Your task to perform on an android device: open app "ColorNote Notepad Notes" (install if not already installed) Image 0: 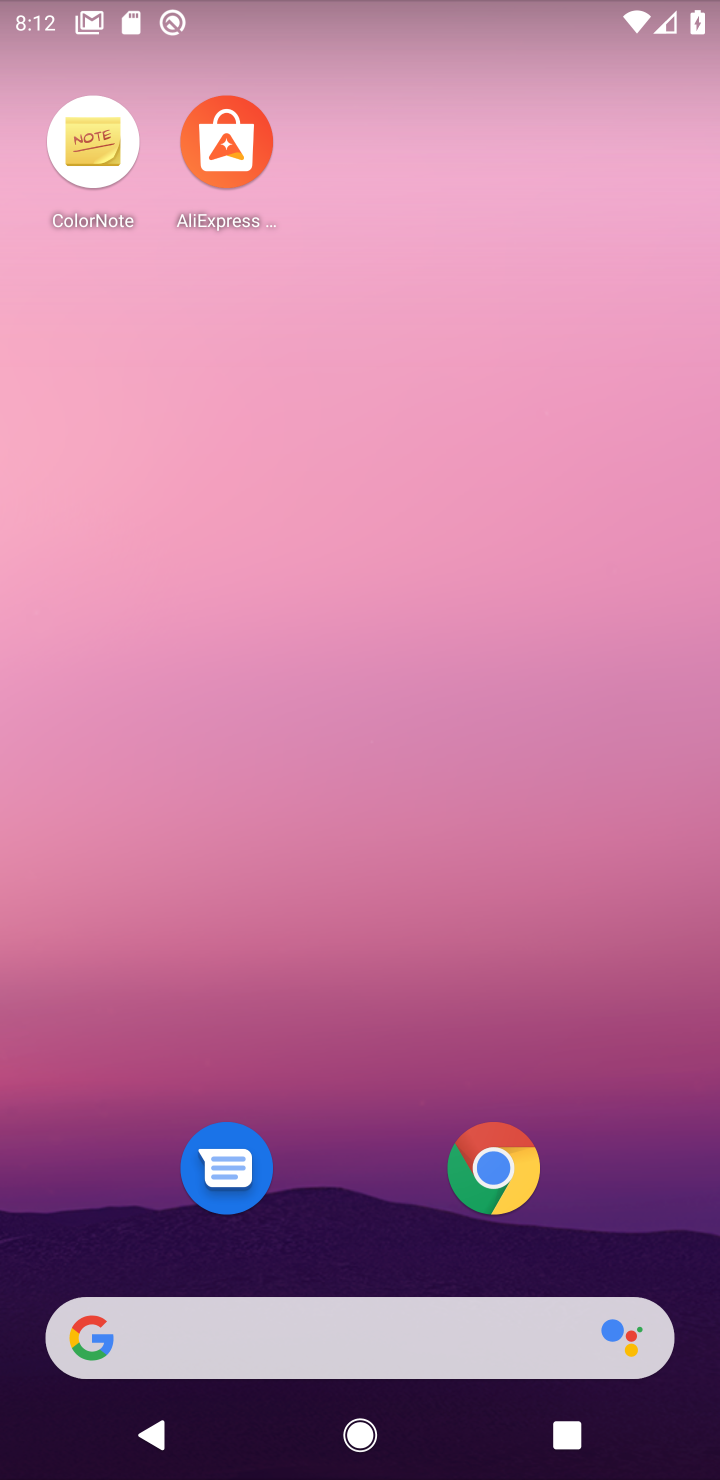
Step 0: drag from (322, 1030) to (191, 31)
Your task to perform on an android device: open app "ColorNote Notepad Notes" (install if not already installed) Image 1: 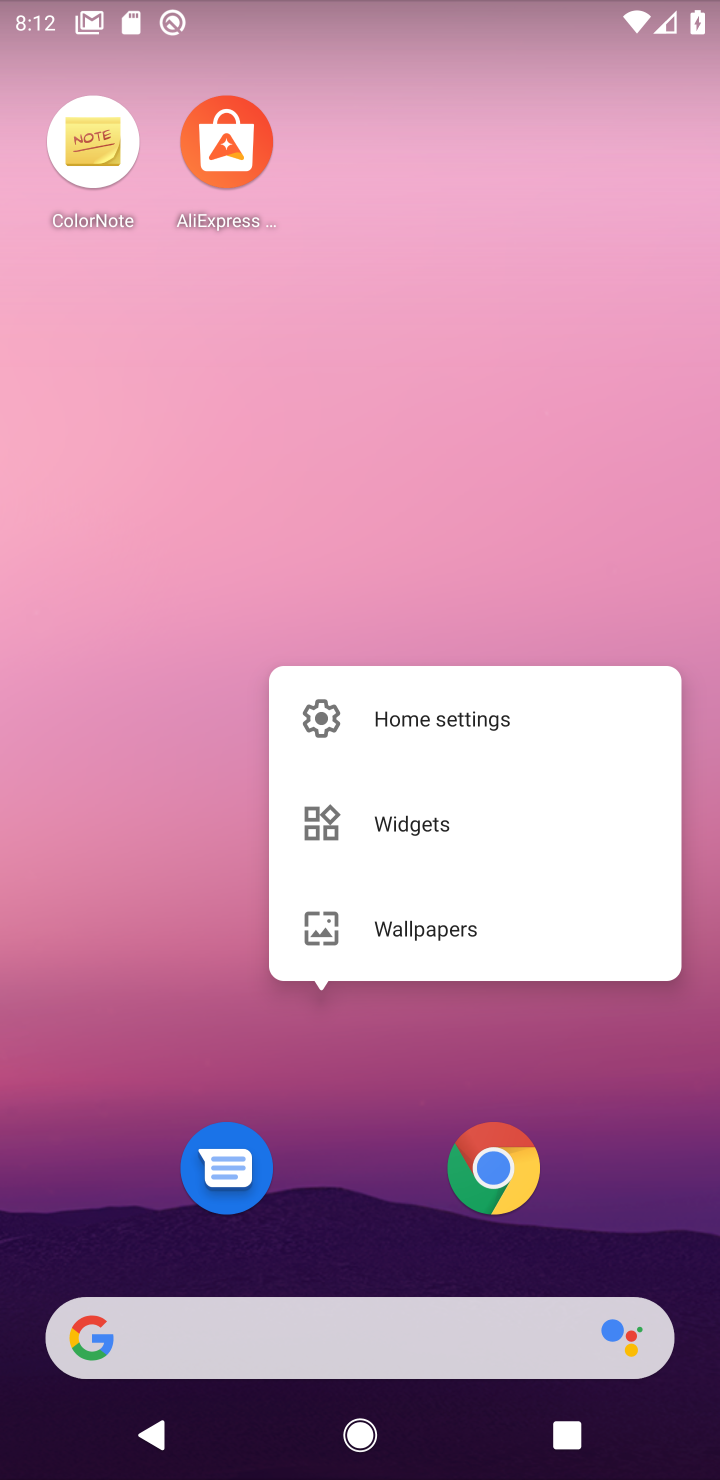
Step 1: click (99, 54)
Your task to perform on an android device: open app "ColorNote Notepad Notes" (install if not already installed) Image 2: 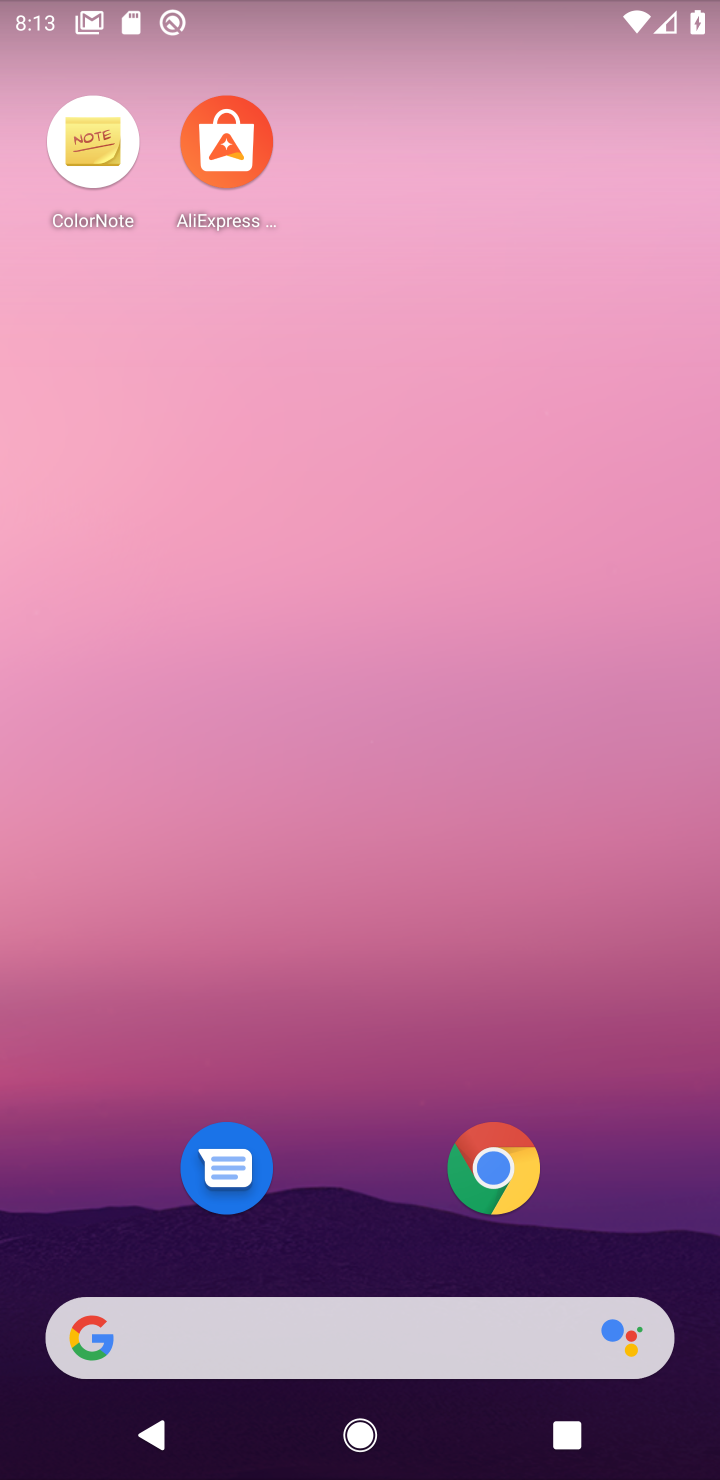
Step 2: click (88, 134)
Your task to perform on an android device: open app "ColorNote Notepad Notes" (install if not already installed) Image 3: 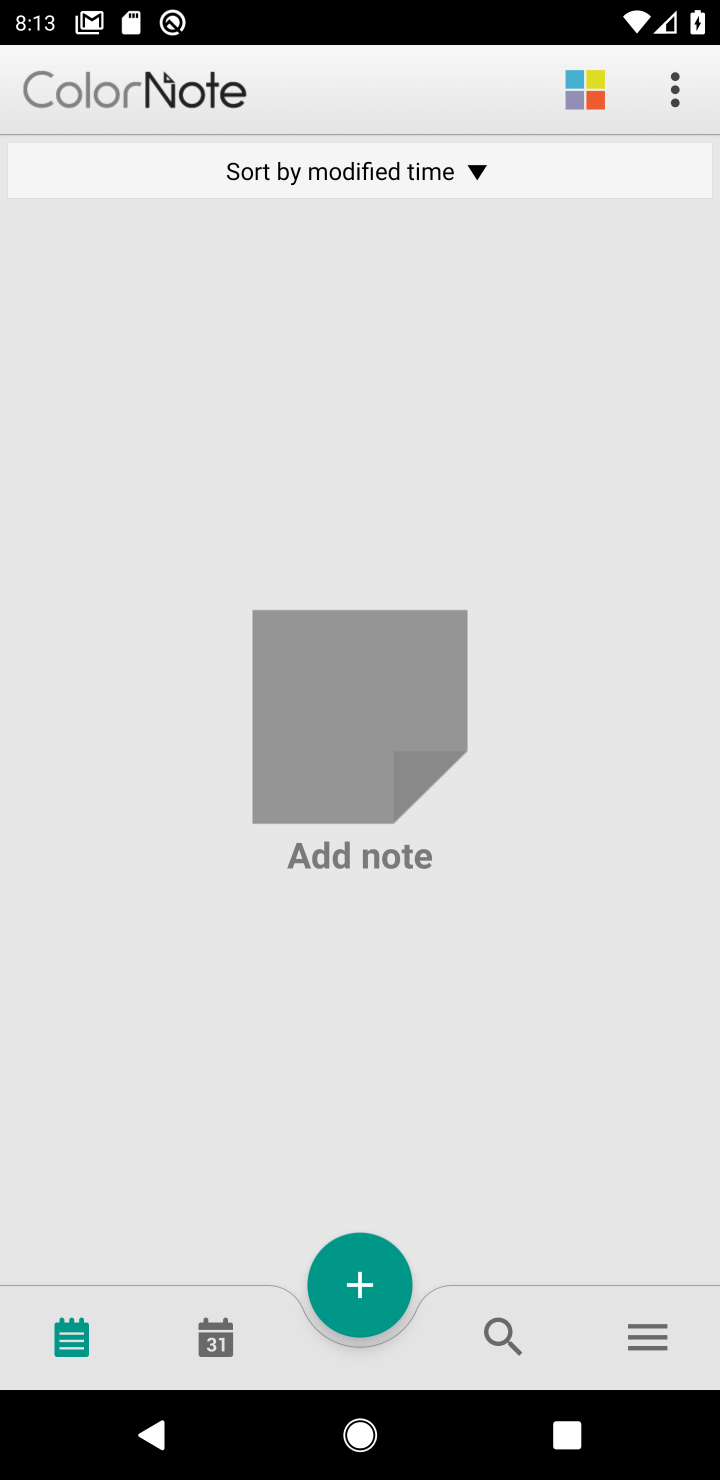
Step 3: task complete